Your task to perform on an android device: Play the last video I watched on Youtube Image 0: 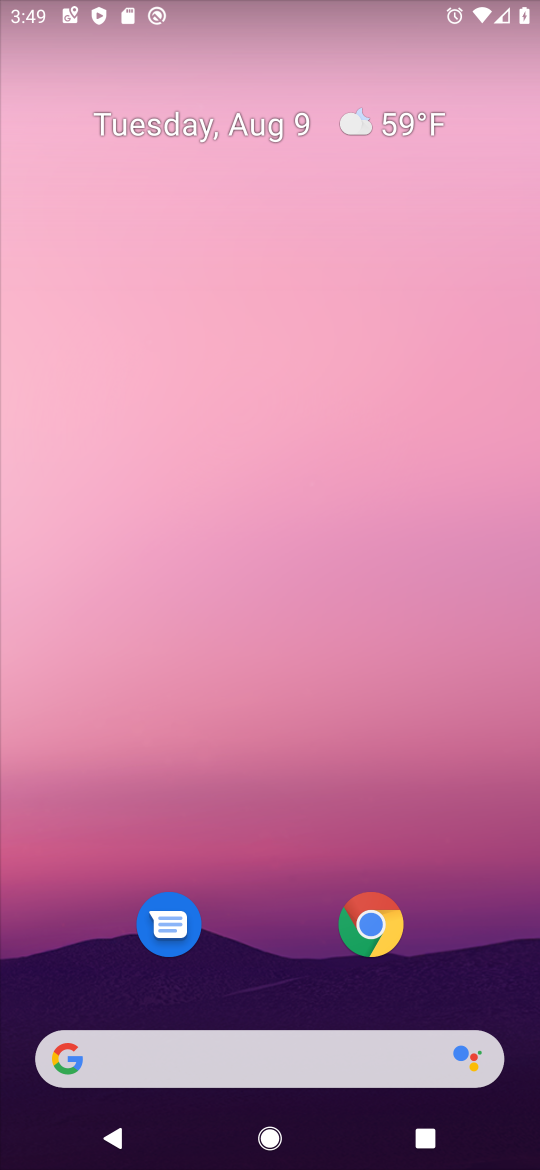
Step 0: drag from (280, 892) to (419, 0)
Your task to perform on an android device: Play the last video I watched on Youtube Image 1: 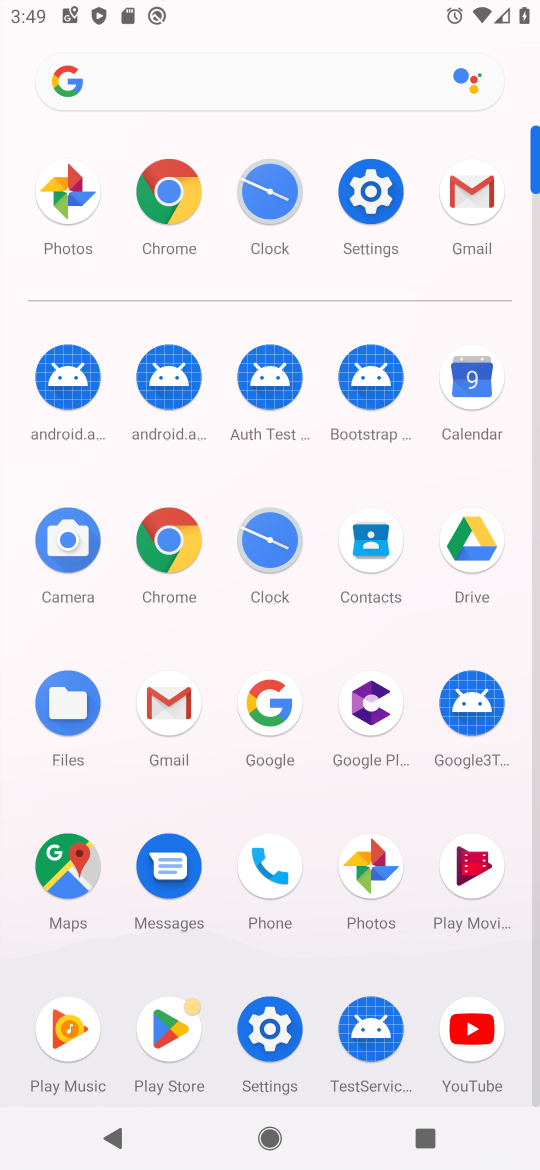
Step 1: click (468, 1027)
Your task to perform on an android device: Play the last video I watched on Youtube Image 2: 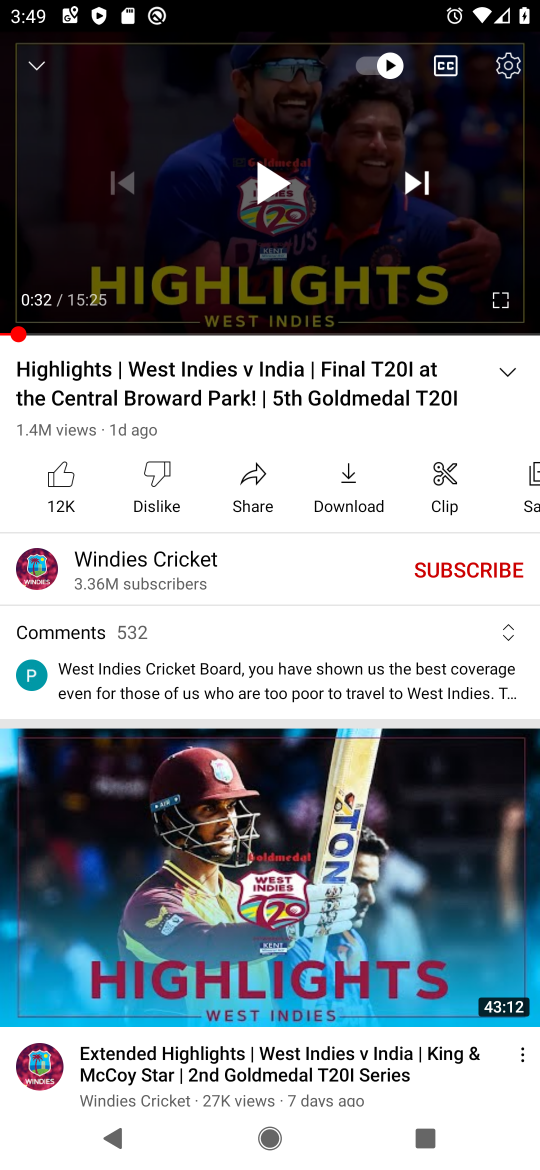
Step 2: press back button
Your task to perform on an android device: Play the last video I watched on Youtube Image 3: 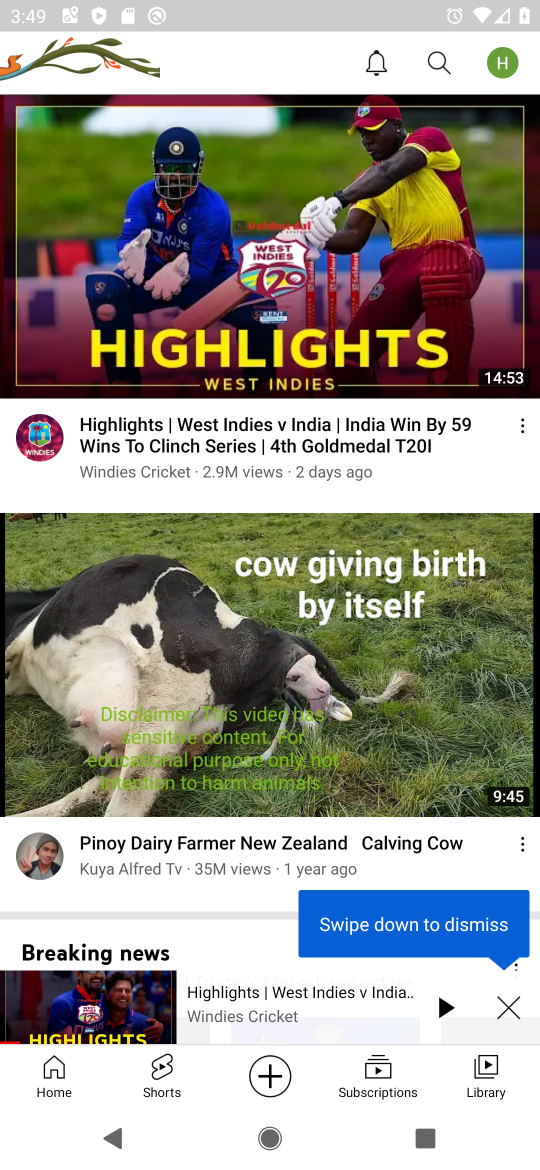
Step 3: click (494, 1072)
Your task to perform on an android device: Play the last video I watched on Youtube Image 4: 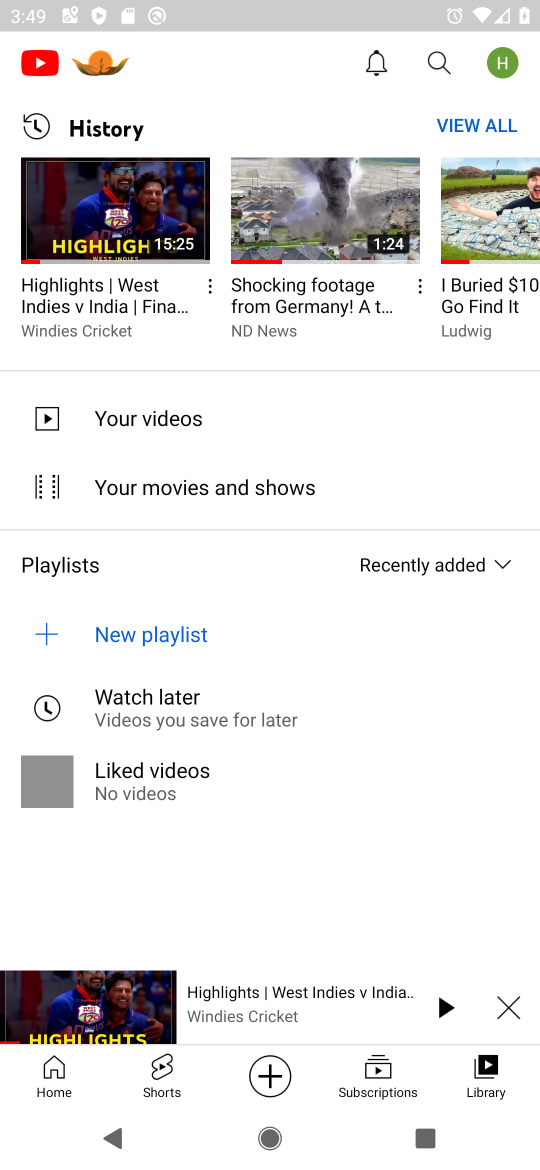
Step 4: click (494, 1072)
Your task to perform on an android device: Play the last video I watched on Youtube Image 5: 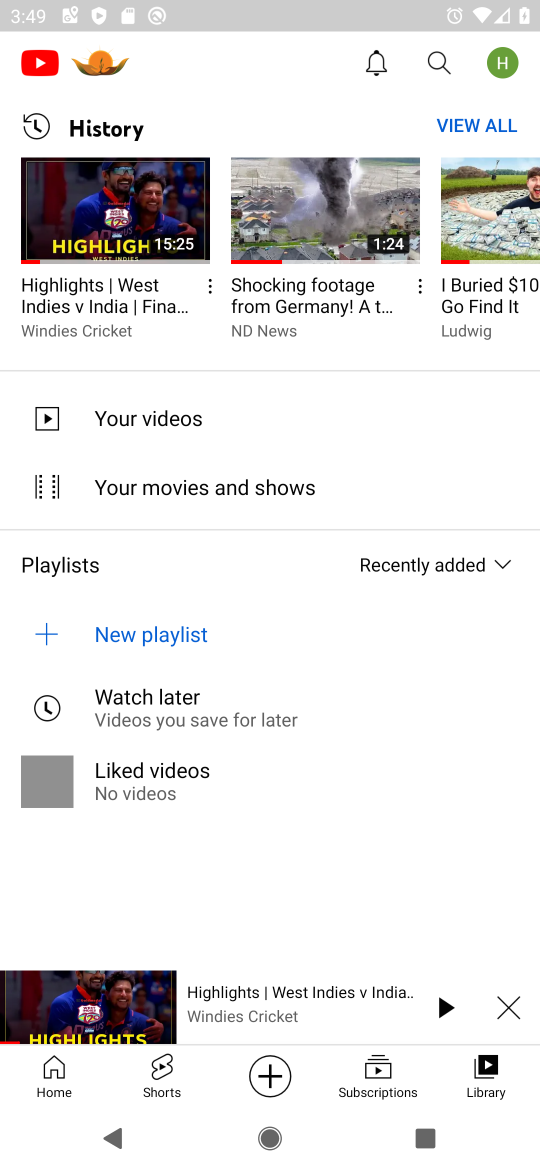
Step 5: click (35, 119)
Your task to perform on an android device: Play the last video I watched on Youtube Image 6: 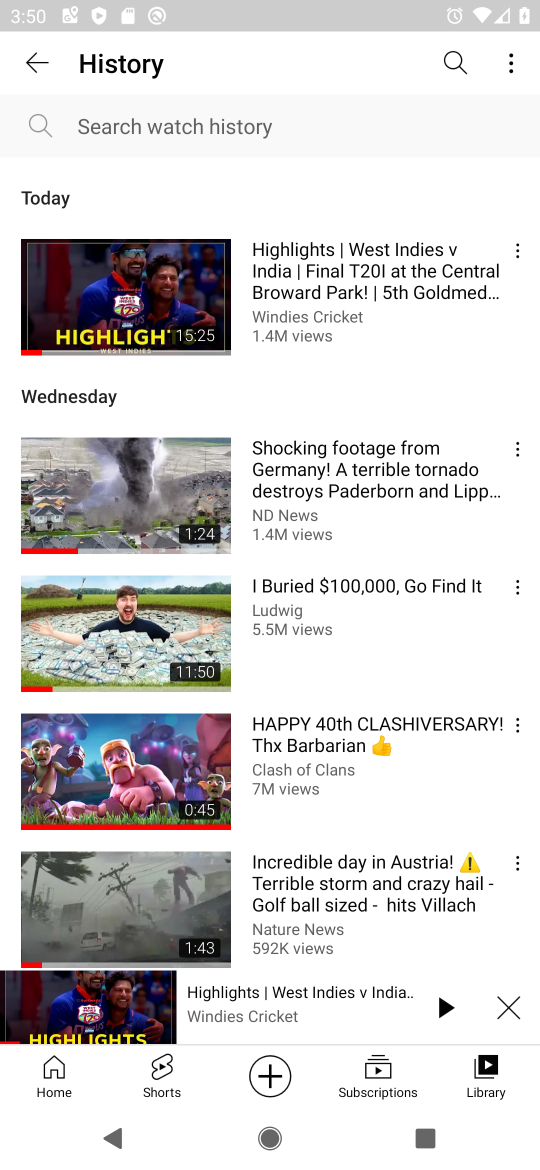
Step 6: click (114, 274)
Your task to perform on an android device: Play the last video I watched on Youtube Image 7: 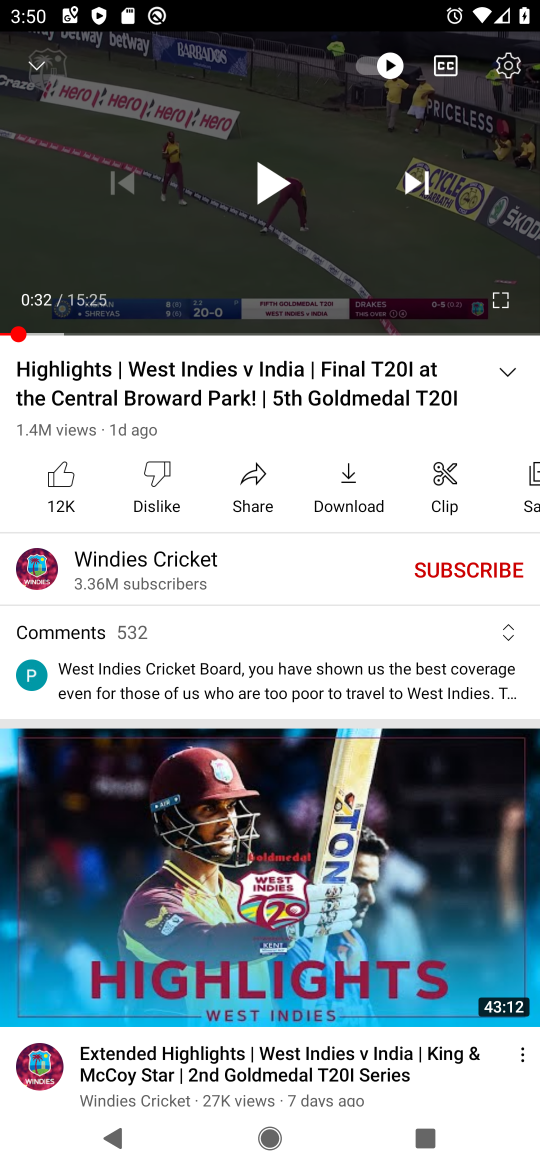
Step 7: click (265, 178)
Your task to perform on an android device: Play the last video I watched on Youtube Image 8: 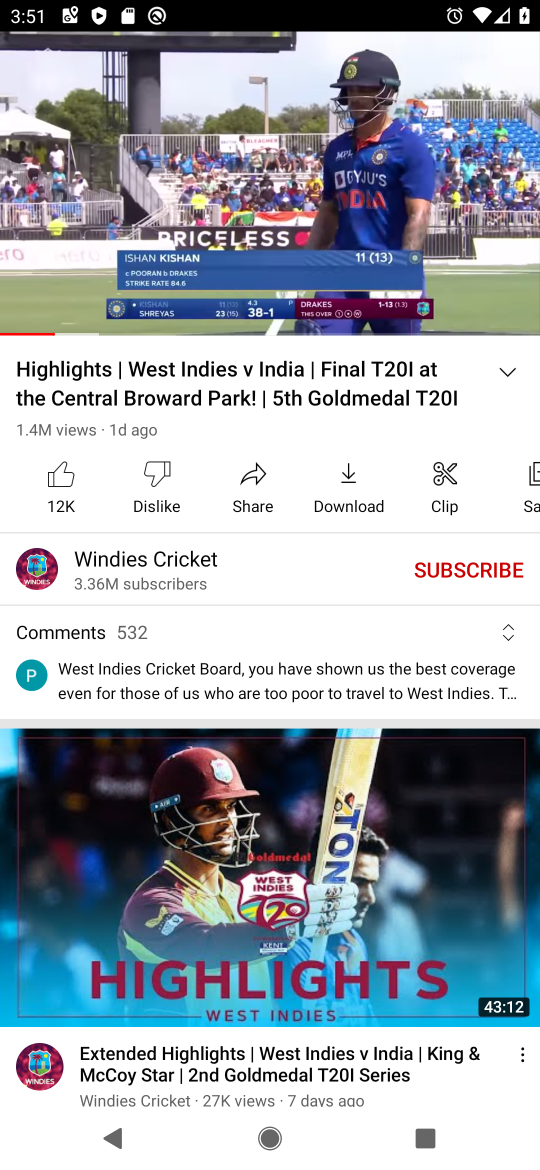
Step 8: task complete